Your task to perform on an android device: Open Reddit.com Image 0: 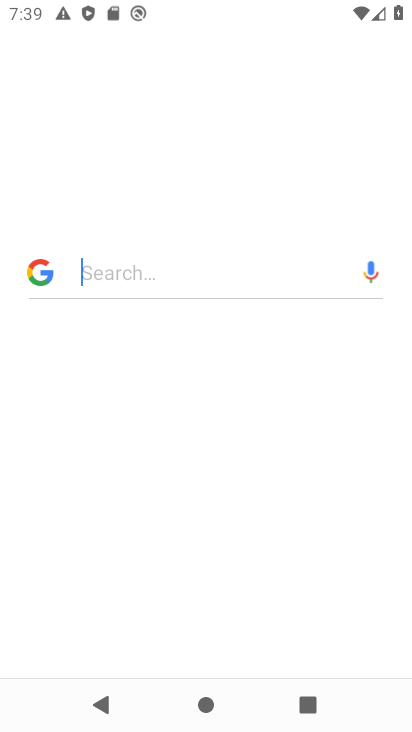
Step 0: drag from (237, 551) to (238, 389)
Your task to perform on an android device: Open Reddit.com Image 1: 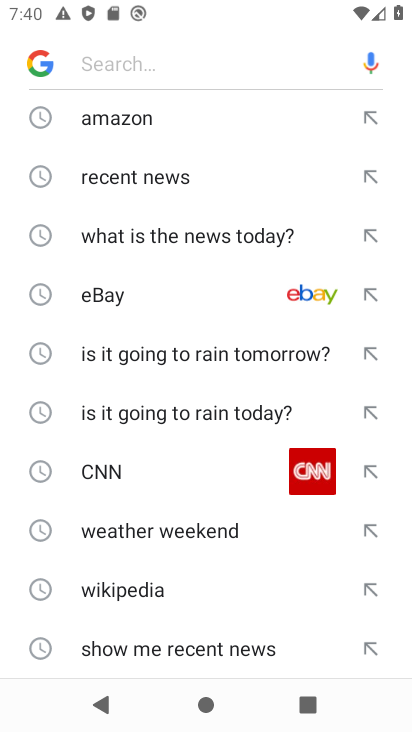
Step 1: type "reddit.com"
Your task to perform on an android device: Open Reddit.com Image 2: 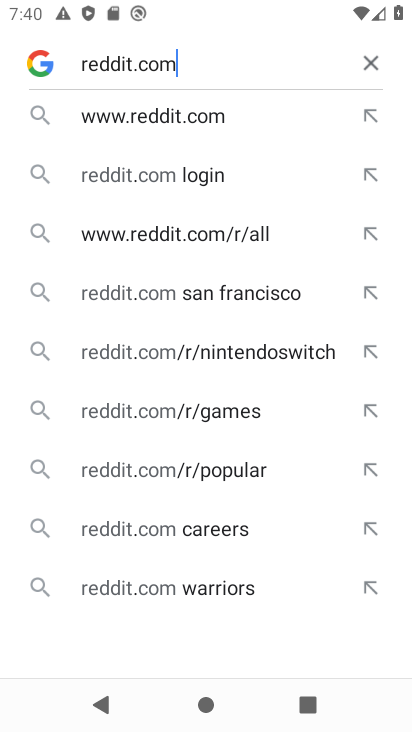
Step 2: click (201, 122)
Your task to perform on an android device: Open Reddit.com Image 3: 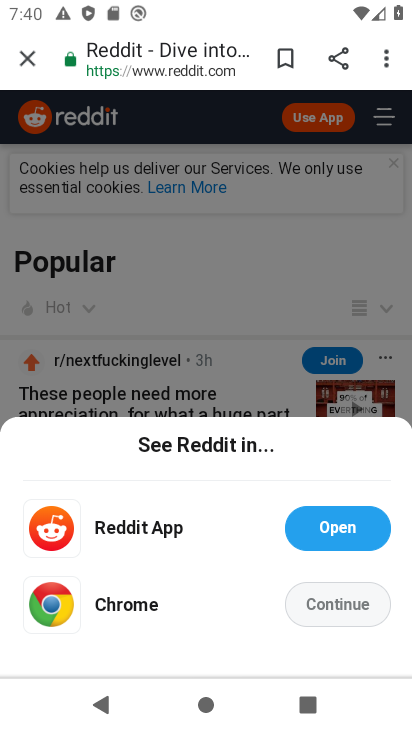
Step 3: click (338, 600)
Your task to perform on an android device: Open Reddit.com Image 4: 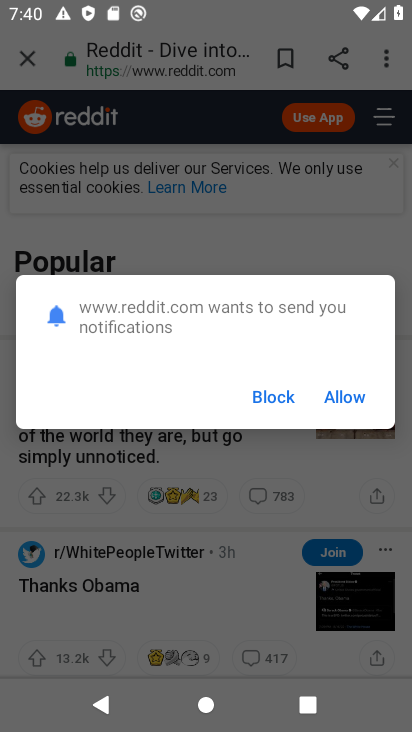
Step 4: click (280, 396)
Your task to perform on an android device: Open Reddit.com Image 5: 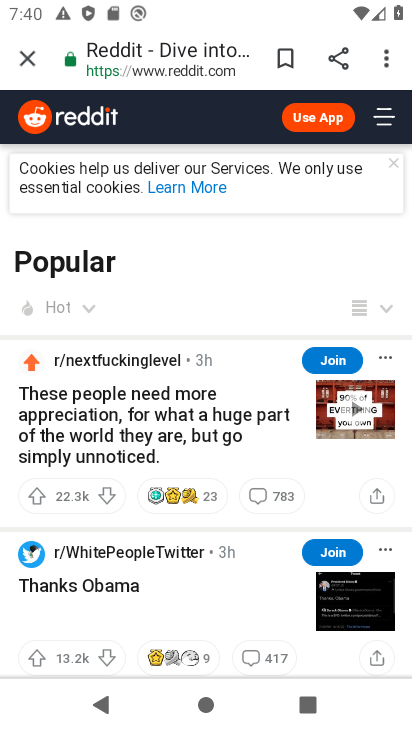
Step 5: task complete